Your task to perform on an android device: Go to Wikipedia Image 0: 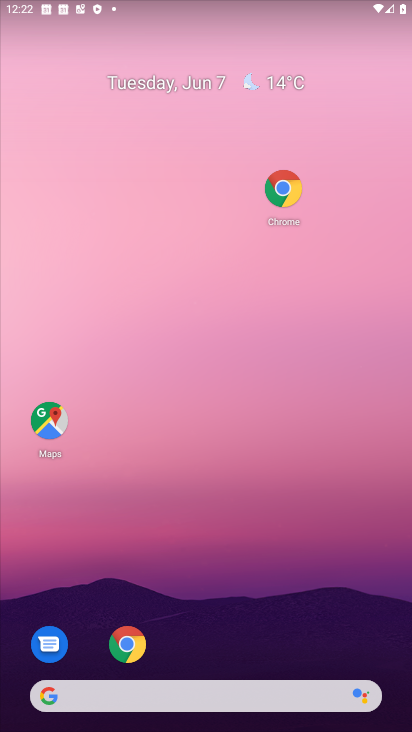
Step 0: drag from (274, 569) to (235, 110)
Your task to perform on an android device: Go to Wikipedia Image 1: 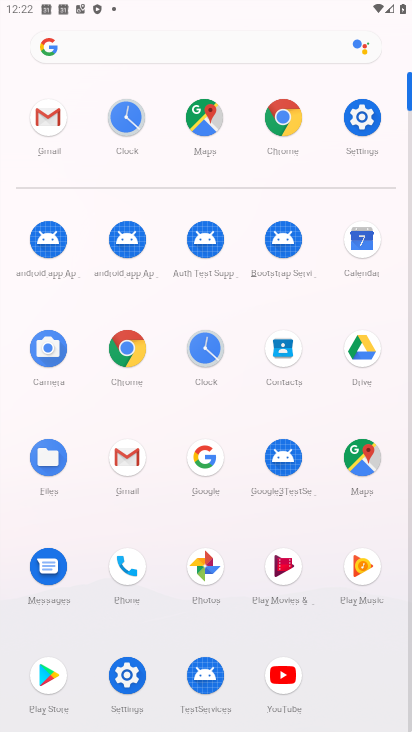
Step 1: click (281, 120)
Your task to perform on an android device: Go to Wikipedia Image 2: 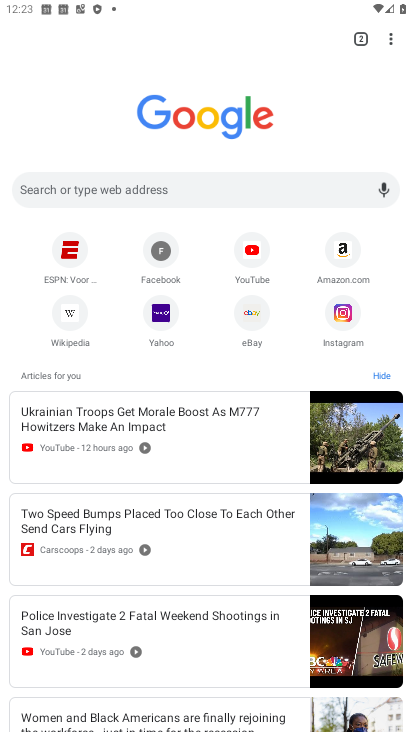
Step 2: click (64, 312)
Your task to perform on an android device: Go to Wikipedia Image 3: 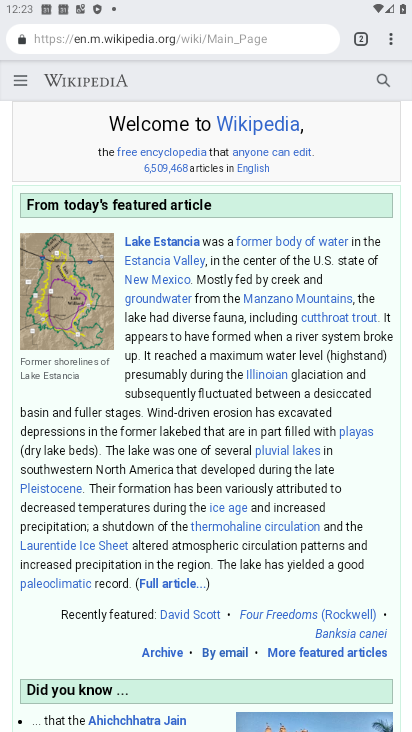
Step 3: task complete